Your task to perform on an android device: What's the weather going to be tomorrow? Image 0: 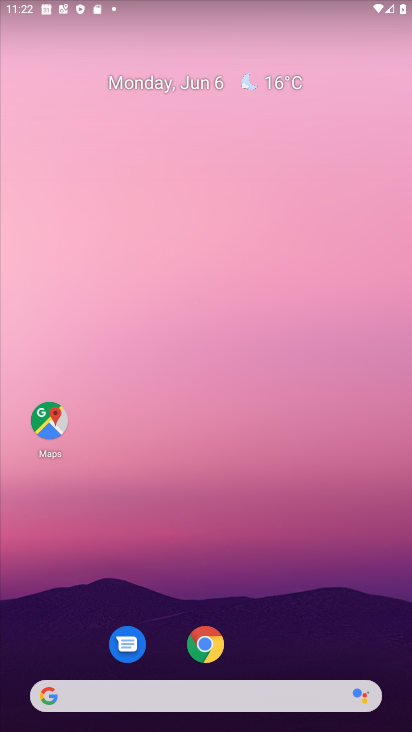
Step 0: click (303, 693)
Your task to perform on an android device: What's the weather going to be tomorrow? Image 1: 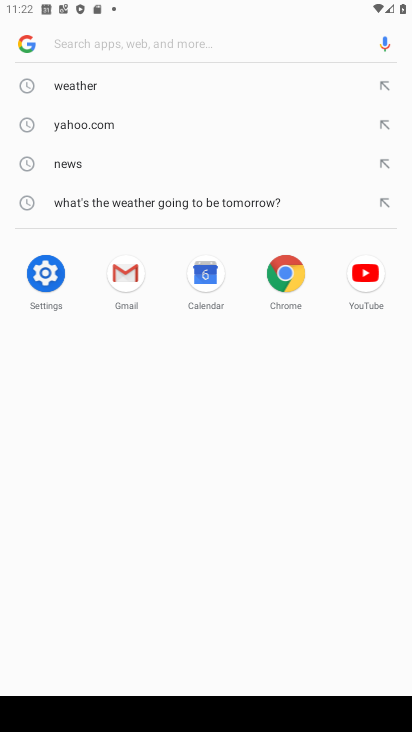
Step 1: type "What's the weather going to be tomorrow?"
Your task to perform on an android device: What's the weather going to be tomorrow? Image 2: 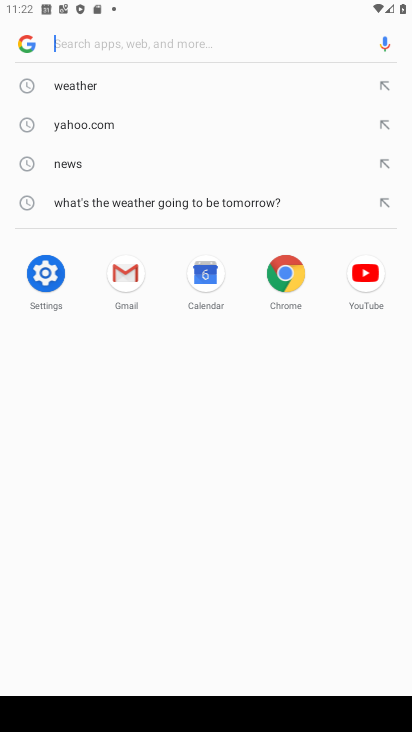
Step 2: click (314, 207)
Your task to perform on an android device: What's the weather going to be tomorrow? Image 3: 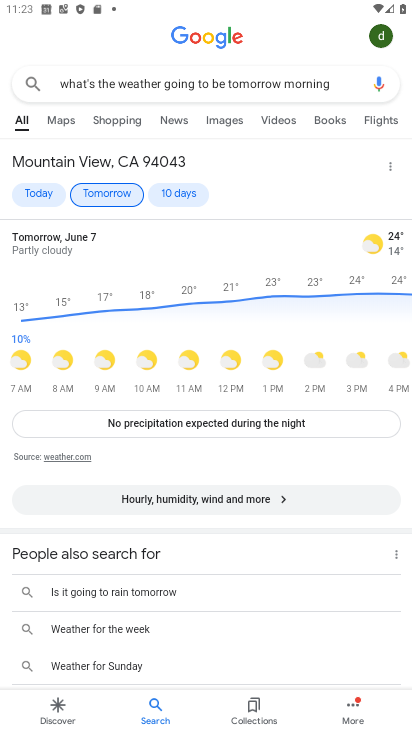
Step 3: task complete